Your task to perform on an android device: Open CNN.com Image 0: 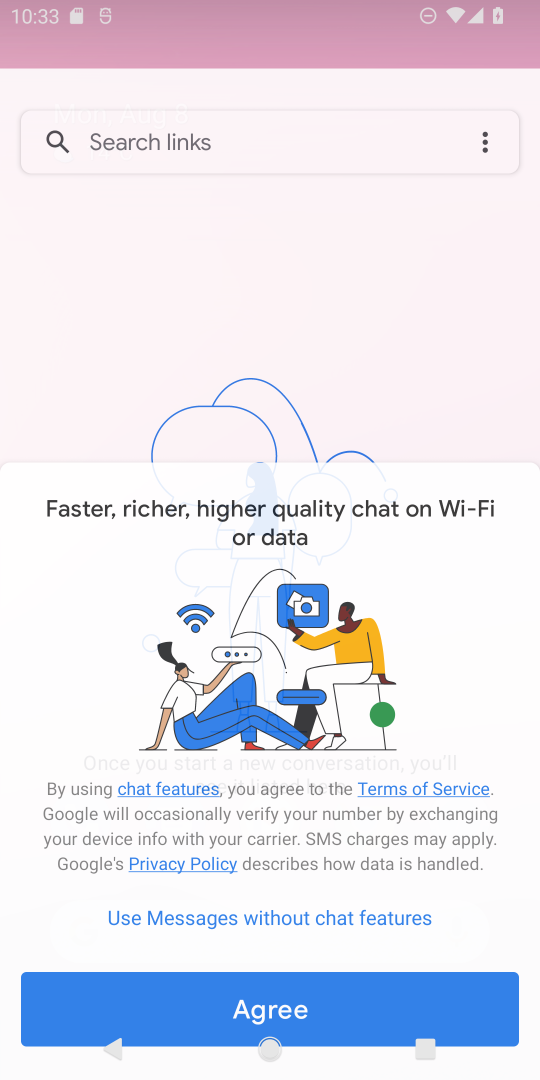
Step 0: press home button
Your task to perform on an android device: Open CNN.com Image 1: 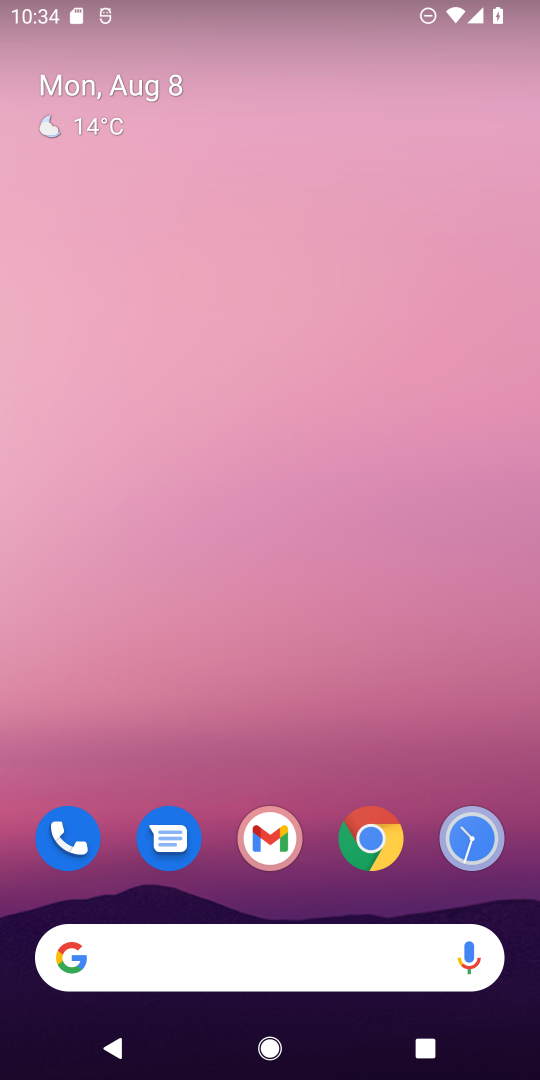
Step 1: click (51, 962)
Your task to perform on an android device: Open CNN.com Image 2: 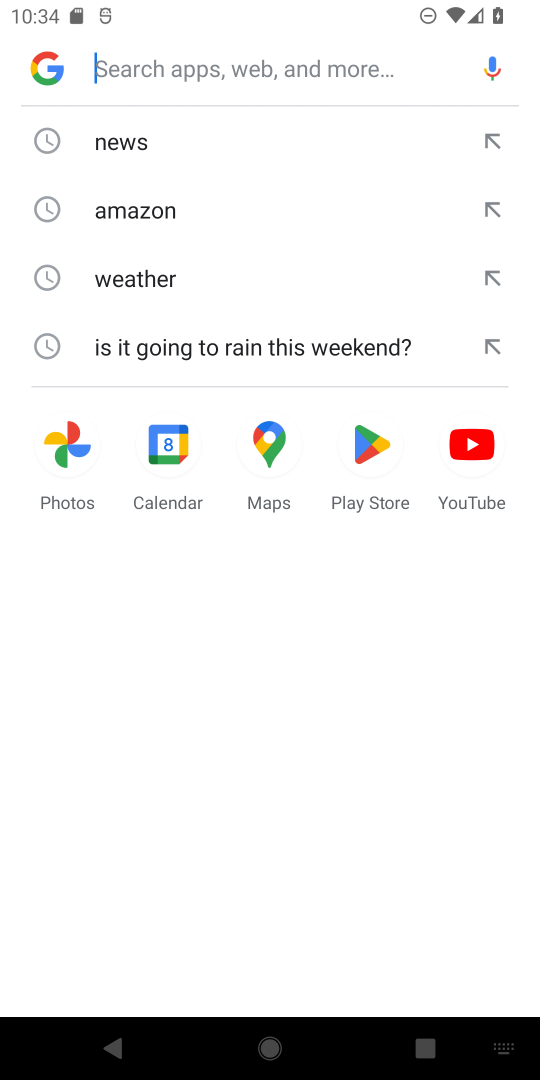
Step 2: type "CNN.com"
Your task to perform on an android device: Open CNN.com Image 3: 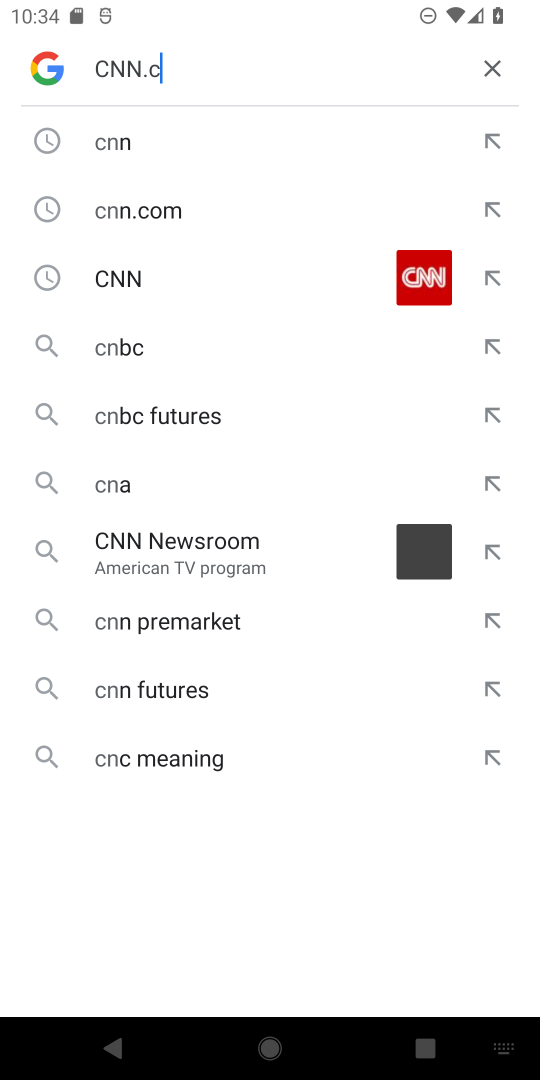
Step 3: press enter
Your task to perform on an android device: Open CNN.com Image 4: 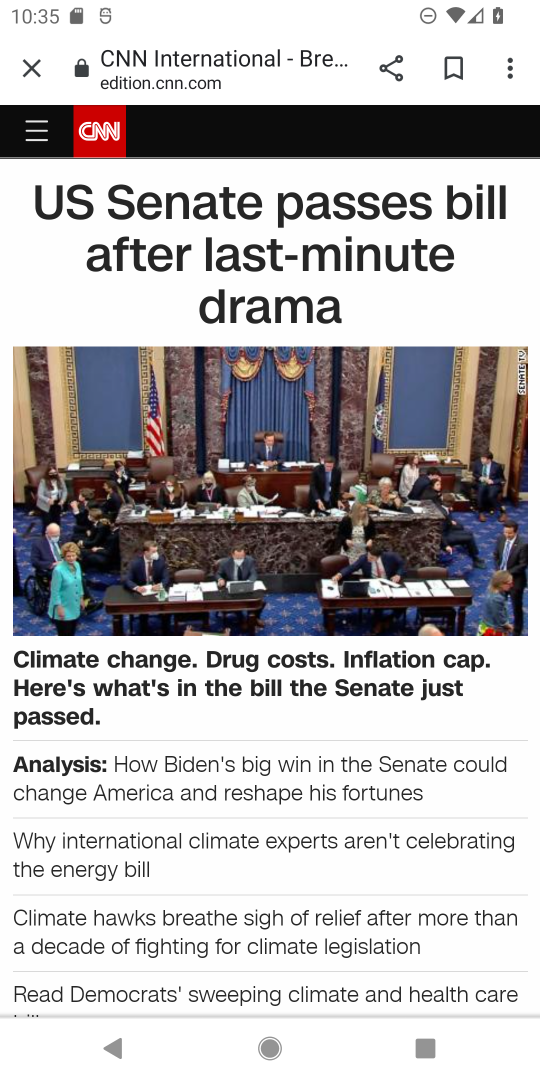
Step 4: task complete